Your task to perform on an android device: Go to Google Image 0: 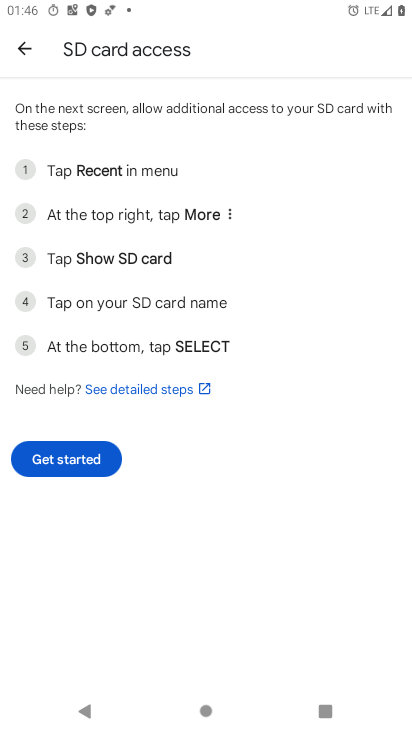
Step 0: drag from (260, 656) to (266, 377)
Your task to perform on an android device: Go to Google Image 1: 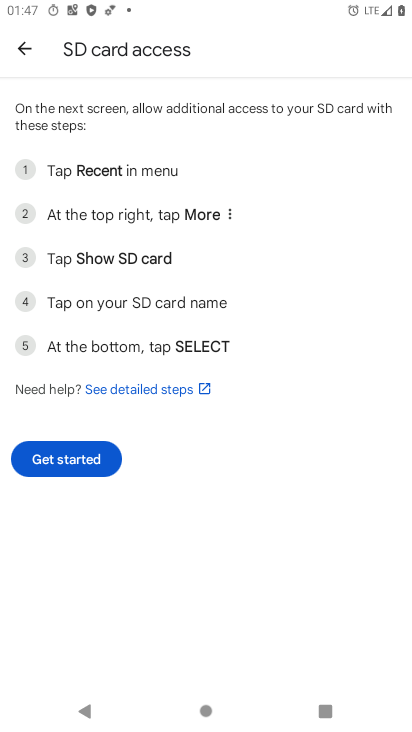
Step 1: press home button
Your task to perform on an android device: Go to Google Image 2: 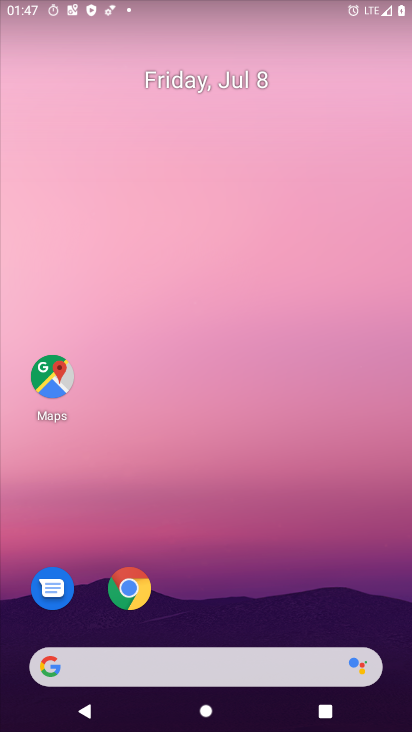
Step 2: drag from (198, 578) to (163, 287)
Your task to perform on an android device: Go to Google Image 3: 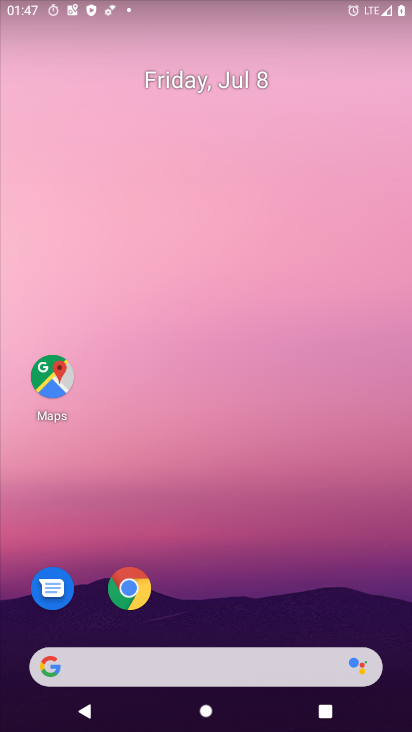
Step 3: click (212, 217)
Your task to perform on an android device: Go to Google Image 4: 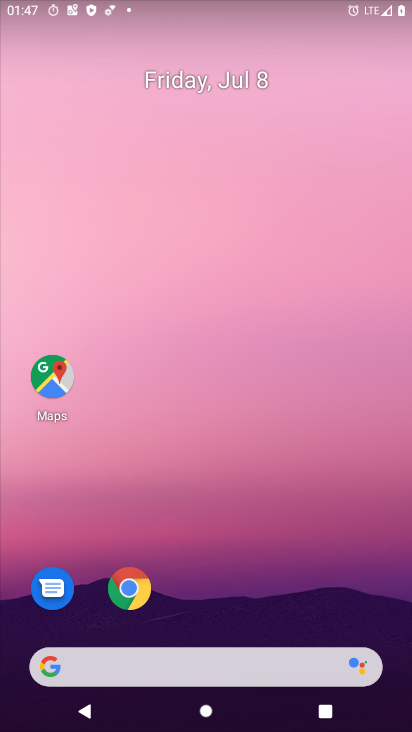
Step 4: drag from (214, 589) to (140, 191)
Your task to perform on an android device: Go to Google Image 5: 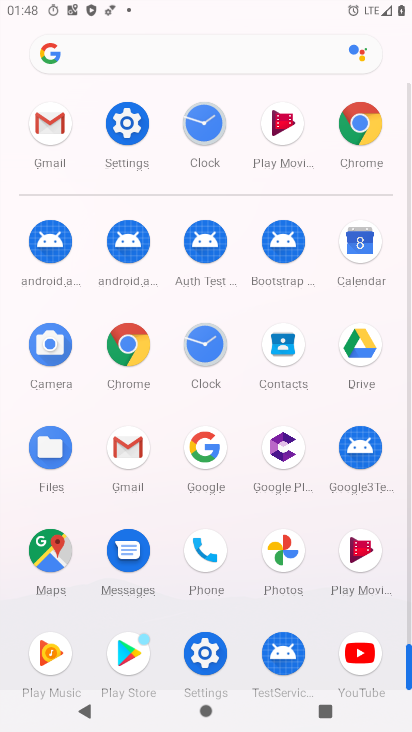
Step 5: click (200, 469)
Your task to perform on an android device: Go to Google Image 6: 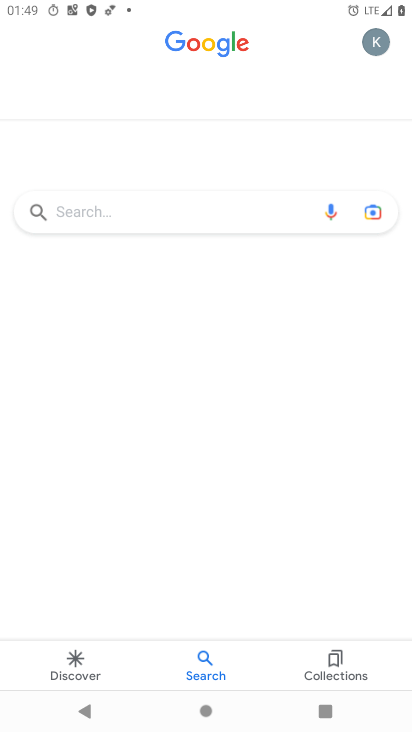
Step 6: task complete